Your task to perform on an android device: What's the weather going to be tomorrow? Image 0: 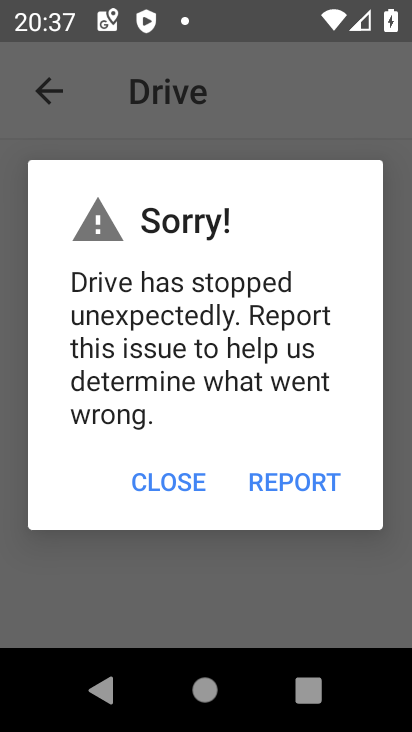
Step 0: press home button
Your task to perform on an android device: What's the weather going to be tomorrow? Image 1: 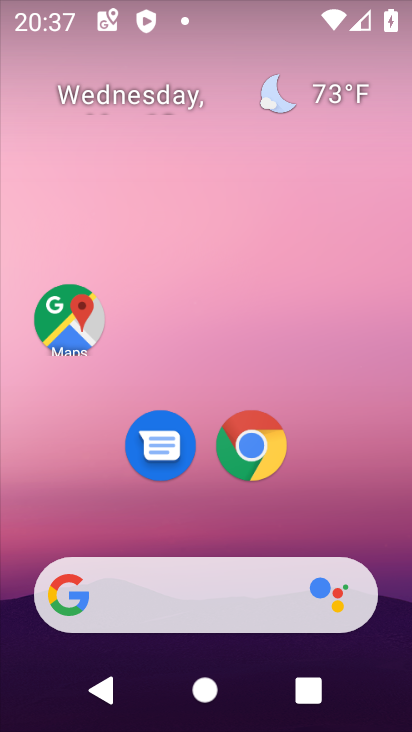
Step 1: click (260, 440)
Your task to perform on an android device: What's the weather going to be tomorrow? Image 2: 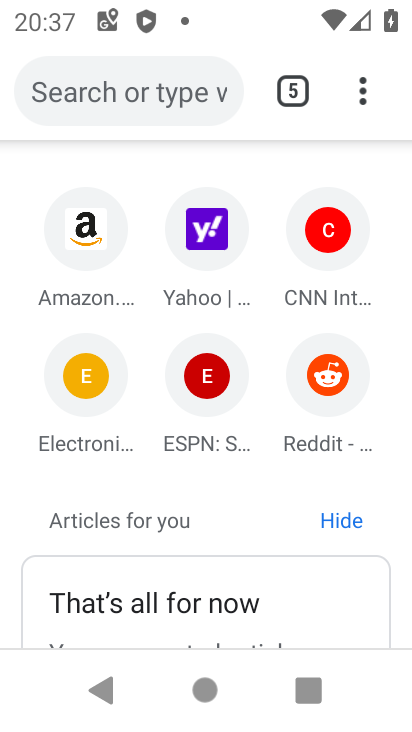
Step 2: click (173, 83)
Your task to perform on an android device: What's the weather going to be tomorrow? Image 3: 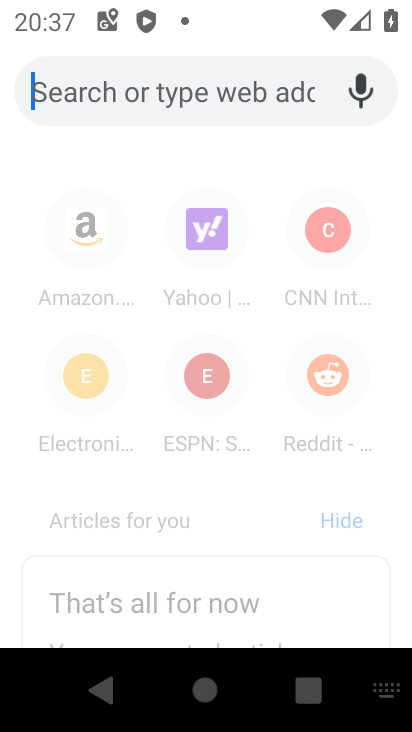
Step 3: click (206, 81)
Your task to perform on an android device: What's the weather going to be tomorrow? Image 4: 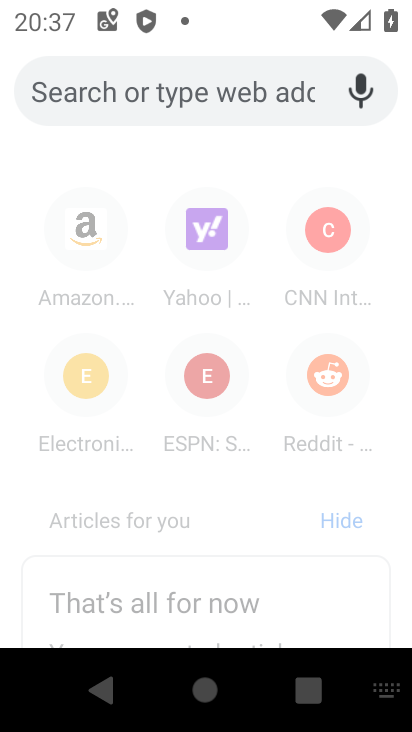
Step 4: type "What's the weather going to be tomorrow?"
Your task to perform on an android device: What's the weather going to be tomorrow? Image 5: 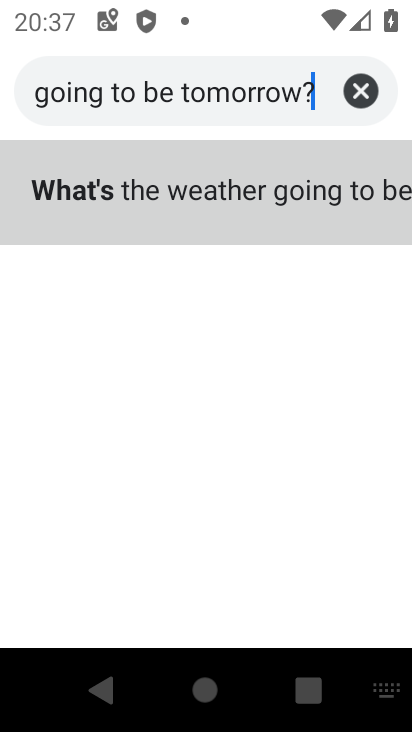
Step 5: click (272, 192)
Your task to perform on an android device: What's the weather going to be tomorrow? Image 6: 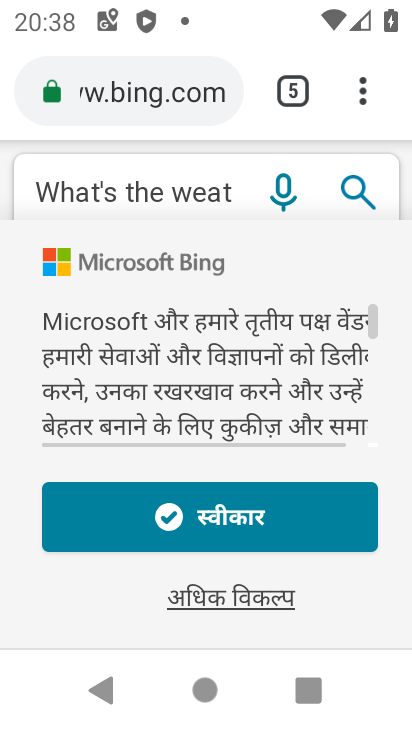
Step 6: click (284, 516)
Your task to perform on an android device: What's the weather going to be tomorrow? Image 7: 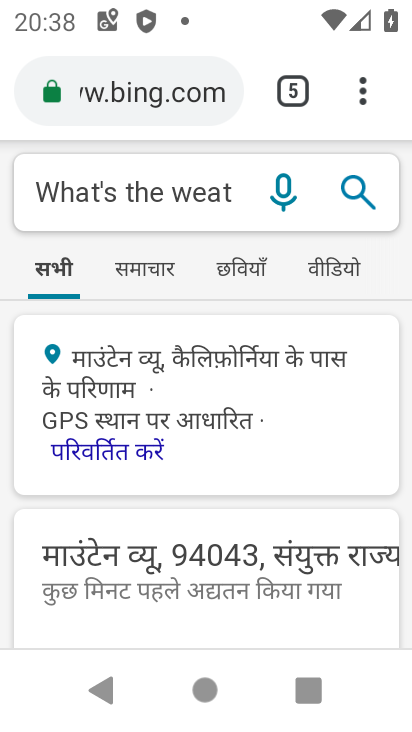
Step 7: task complete